Your task to perform on an android device: change notifications settings Image 0: 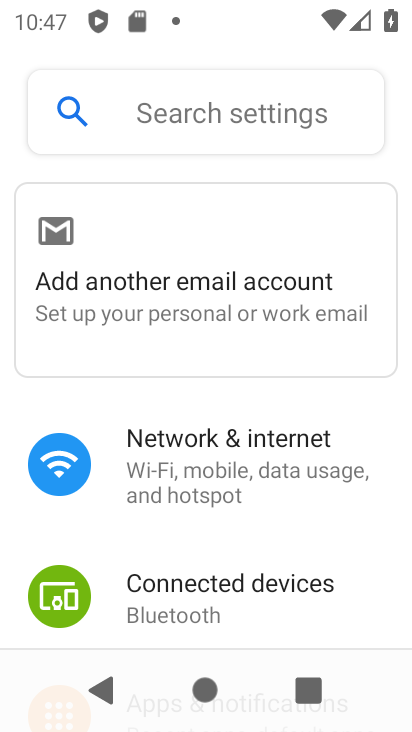
Step 0: drag from (206, 544) to (294, 132)
Your task to perform on an android device: change notifications settings Image 1: 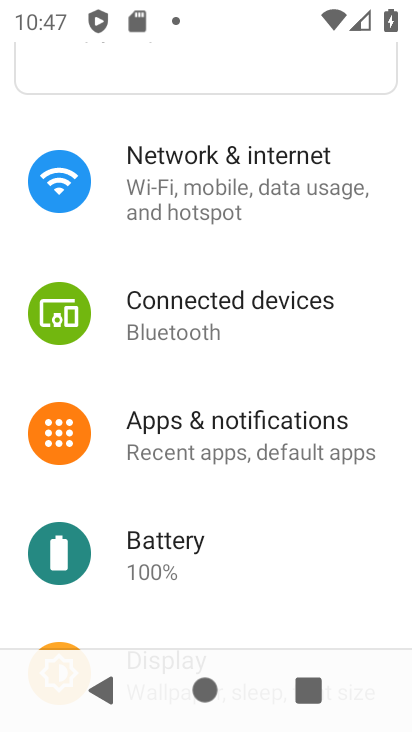
Step 1: click (194, 435)
Your task to perform on an android device: change notifications settings Image 2: 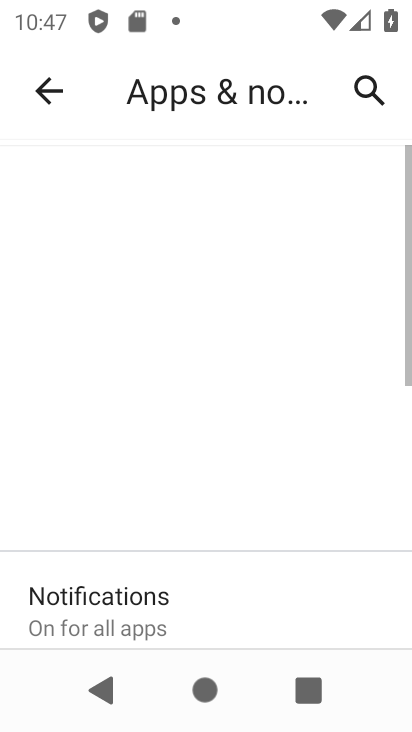
Step 2: drag from (264, 564) to (353, 114)
Your task to perform on an android device: change notifications settings Image 3: 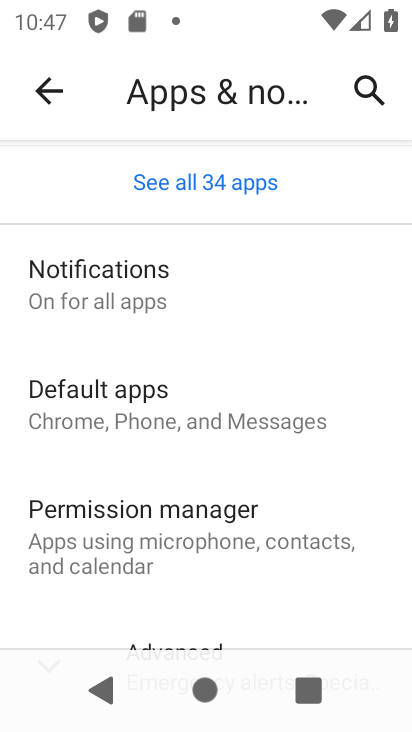
Step 3: drag from (244, 564) to (300, 289)
Your task to perform on an android device: change notifications settings Image 4: 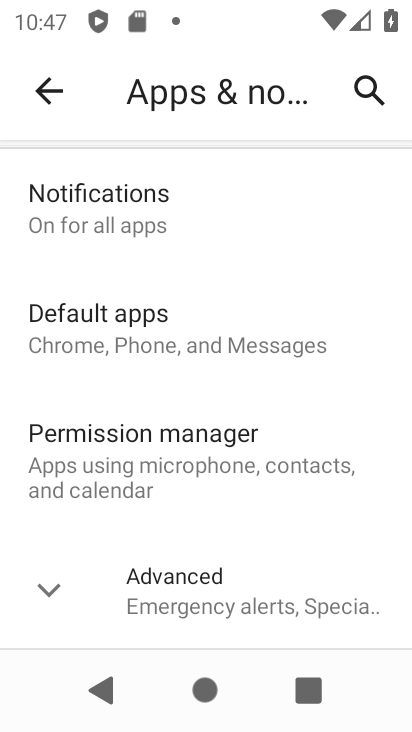
Step 4: click (160, 222)
Your task to perform on an android device: change notifications settings Image 5: 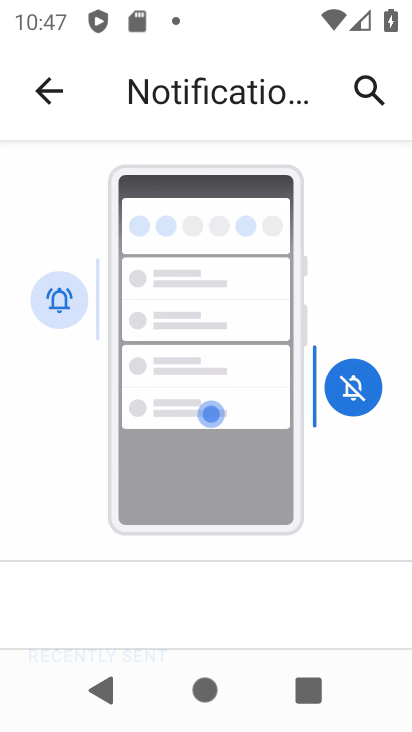
Step 5: drag from (247, 564) to (345, 166)
Your task to perform on an android device: change notifications settings Image 6: 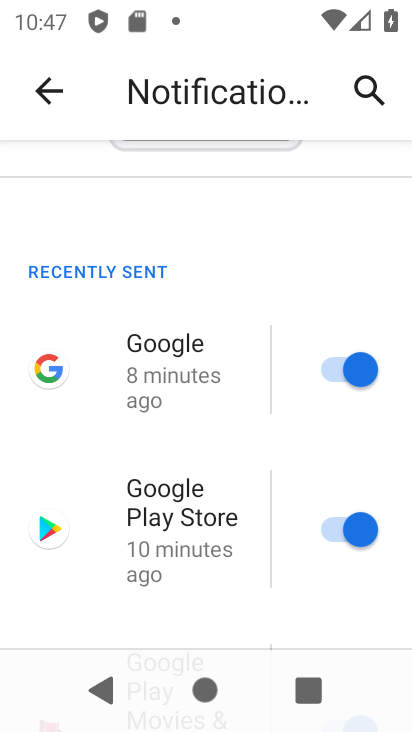
Step 6: drag from (259, 457) to (368, 159)
Your task to perform on an android device: change notifications settings Image 7: 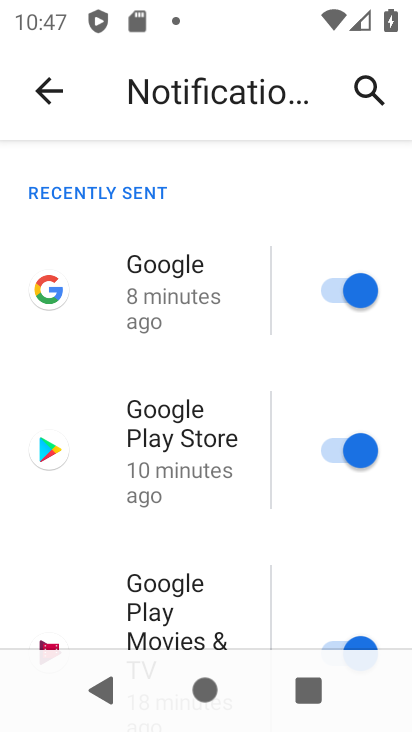
Step 7: drag from (242, 561) to (359, 112)
Your task to perform on an android device: change notifications settings Image 8: 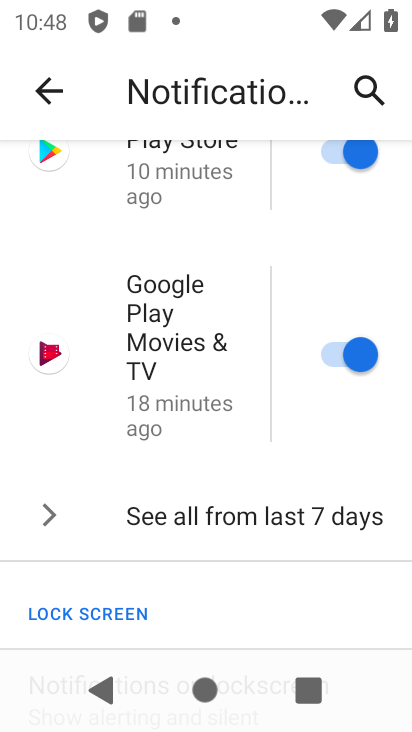
Step 8: drag from (214, 618) to (368, 152)
Your task to perform on an android device: change notifications settings Image 9: 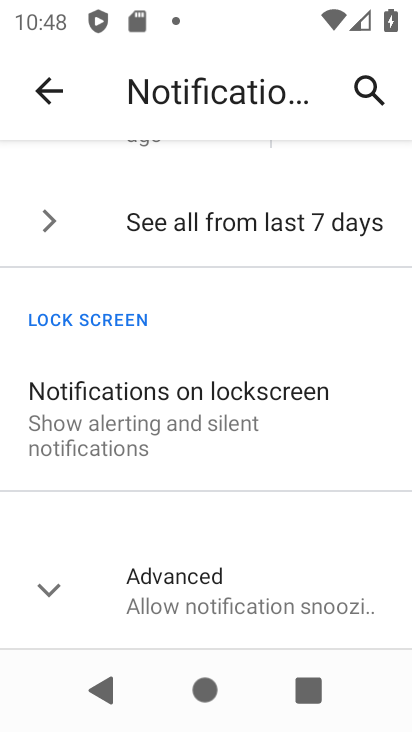
Step 9: click (140, 578)
Your task to perform on an android device: change notifications settings Image 10: 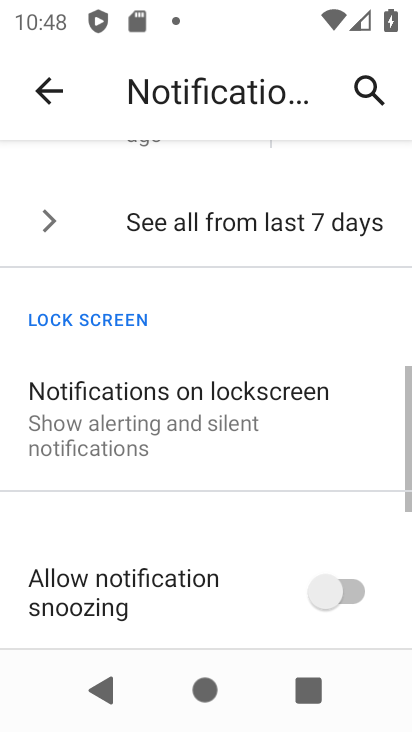
Step 10: drag from (138, 567) to (304, 26)
Your task to perform on an android device: change notifications settings Image 11: 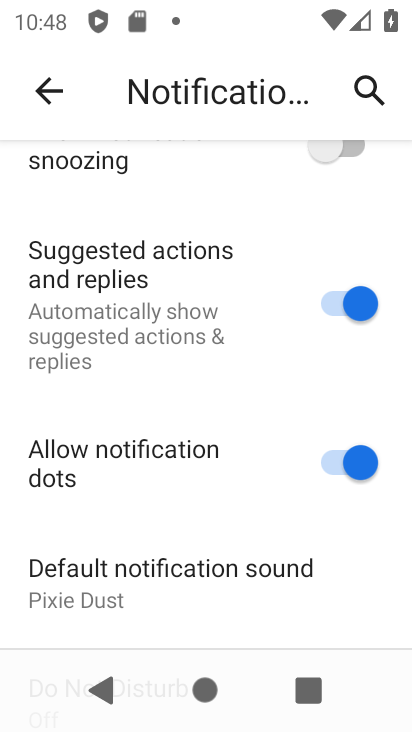
Step 11: drag from (213, 544) to (255, 231)
Your task to perform on an android device: change notifications settings Image 12: 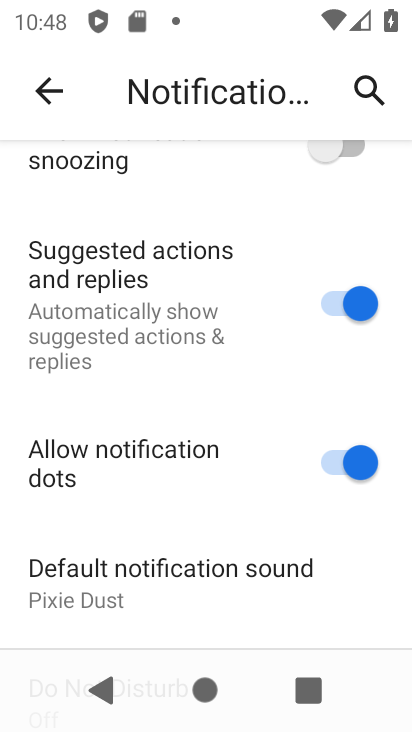
Step 12: drag from (204, 554) to (237, 291)
Your task to perform on an android device: change notifications settings Image 13: 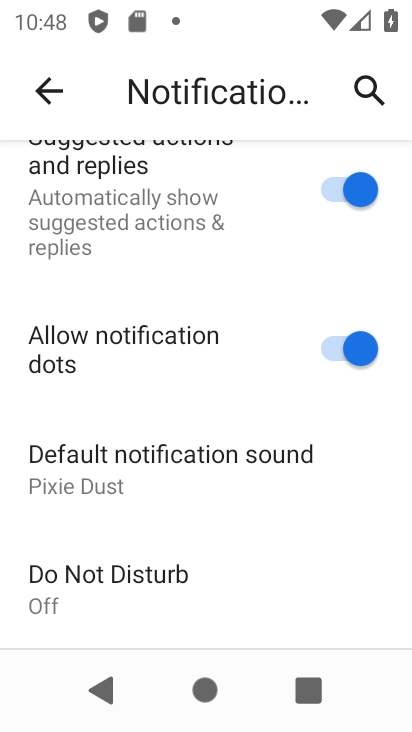
Step 13: drag from (213, 249) to (301, 659)
Your task to perform on an android device: change notifications settings Image 14: 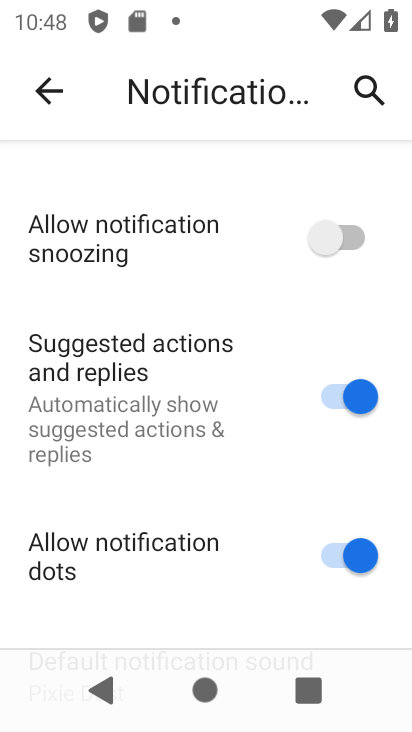
Step 14: drag from (251, 364) to (317, 587)
Your task to perform on an android device: change notifications settings Image 15: 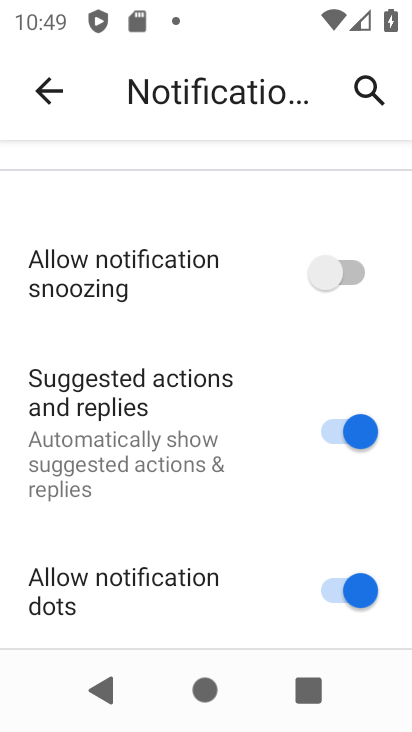
Step 15: drag from (188, 562) to (215, 187)
Your task to perform on an android device: change notifications settings Image 16: 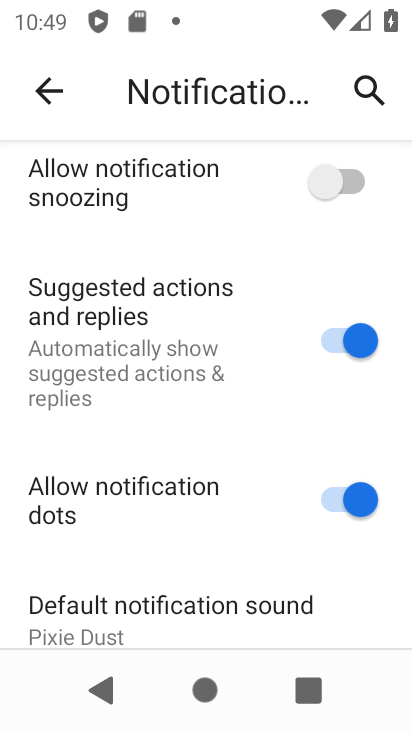
Step 16: drag from (186, 272) to (343, 573)
Your task to perform on an android device: change notifications settings Image 17: 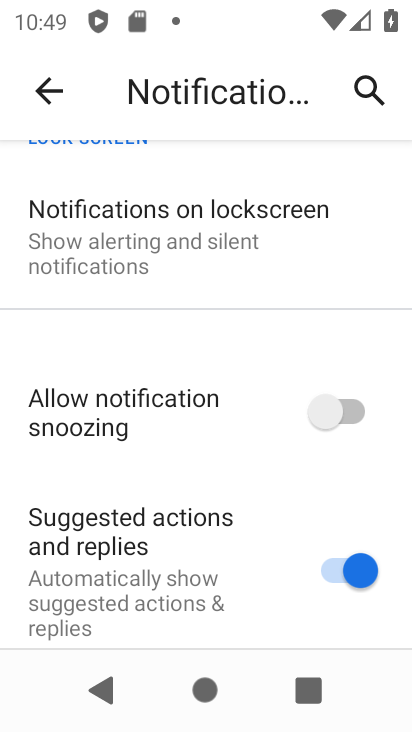
Step 17: click (338, 410)
Your task to perform on an android device: change notifications settings Image 18: 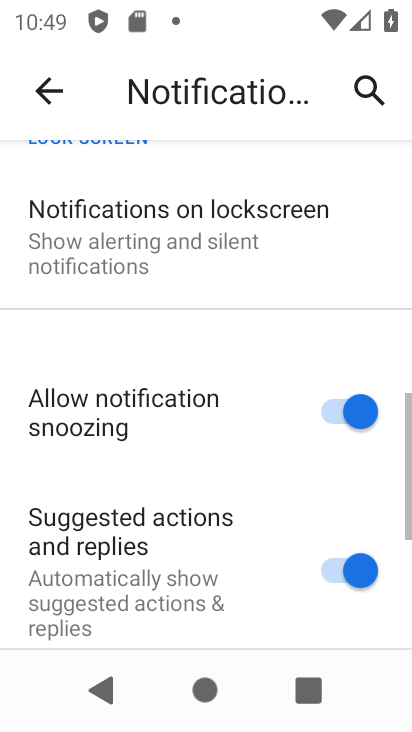
Step 18: task complete